Your task to perform on an android device: Open Maps and search for coffee Image 0: 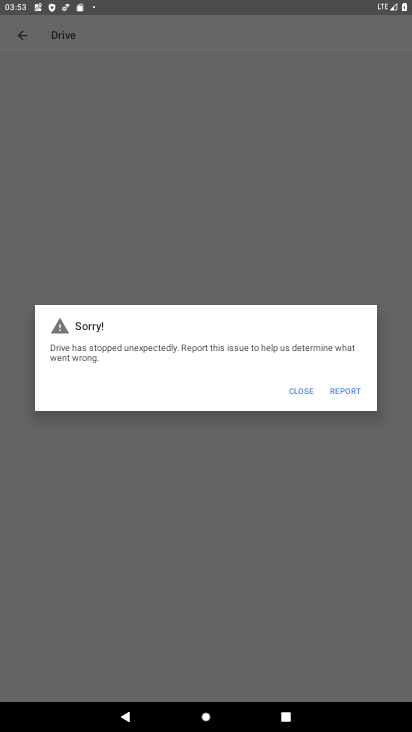
Step 0: press home button
Your task to perform on an android device: Open Maps and search for coffee Image 1: 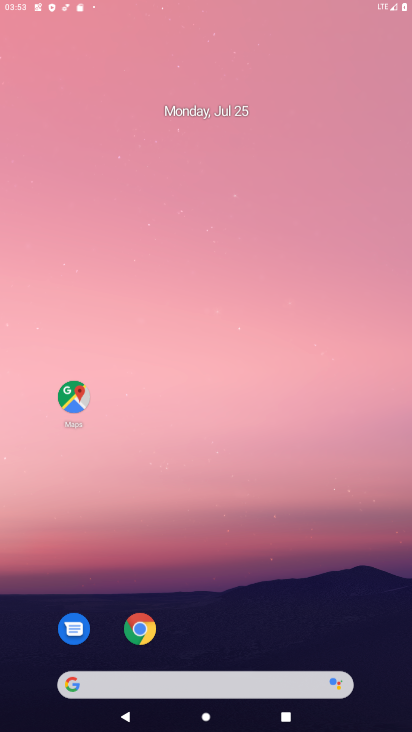
Step 1: press home button
Your task to perform on an android device: Open Maps and search for coffee Image 2: 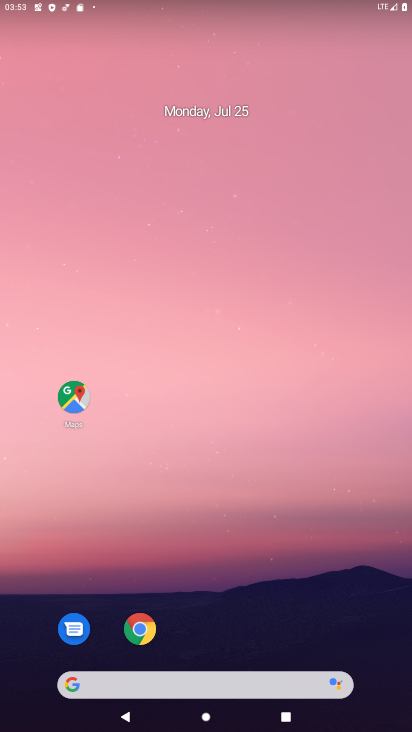
Step 2: click (68, 397)
Your task to perform on an android device: Open Maps and search for coffee Image 3: 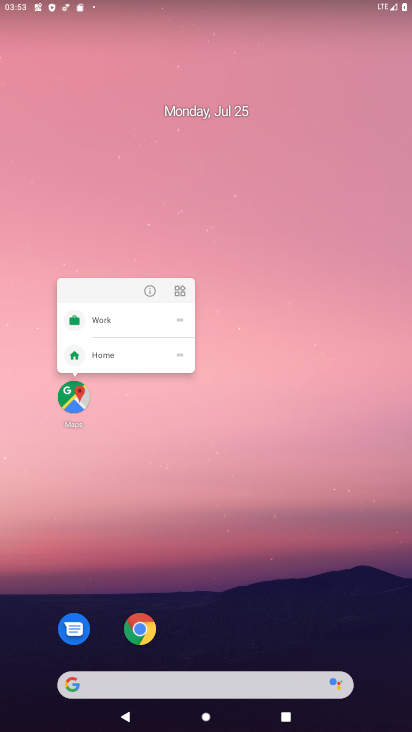
Step 3: click (70, 401)
Your task to perform on an android device: Open Maps and search for coffee Image 4: 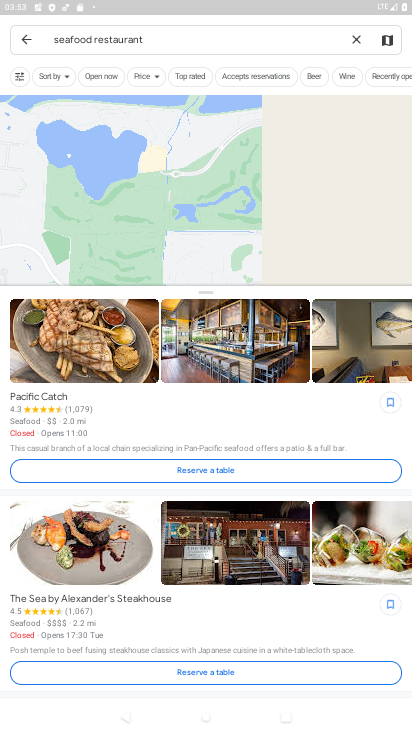
Step 4: click (360, 41)
Your task to perform on an android device: Open Maps and search for coffee Image 5: 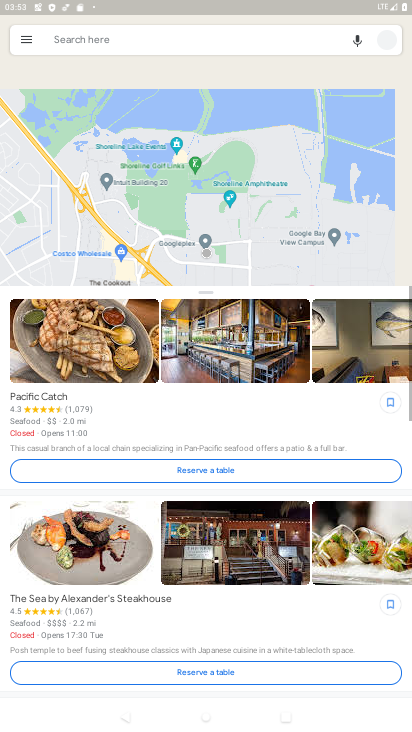
Step 5: click (177, 45)
Your task to perform on an android device: Open Maps and search for coffee Image 6: 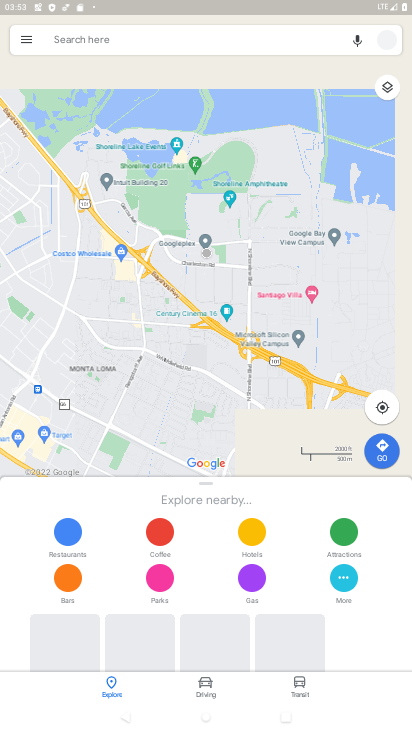
Step 6: click (124, 43)
Your task to perform on an android device: Open Maps and search for coffee Image 7: 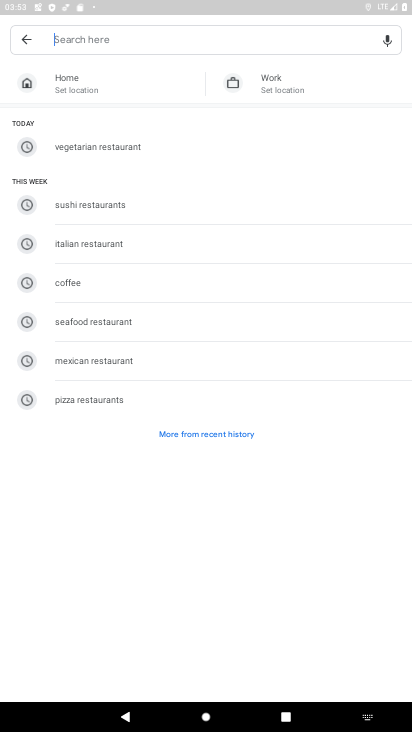
Step 7: type "coffee"
Your task to perform on an android device: Open Maps and search for coffee Image 8: 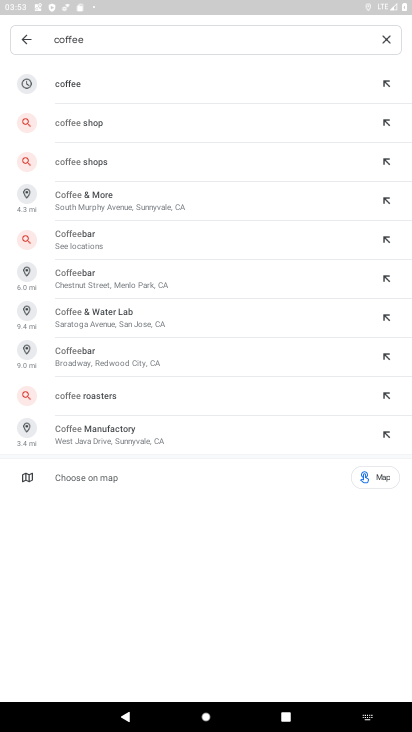
Step 8: click (57, 77)
Your task to perform on an android device: Open Maps and search for coffee Image 9: 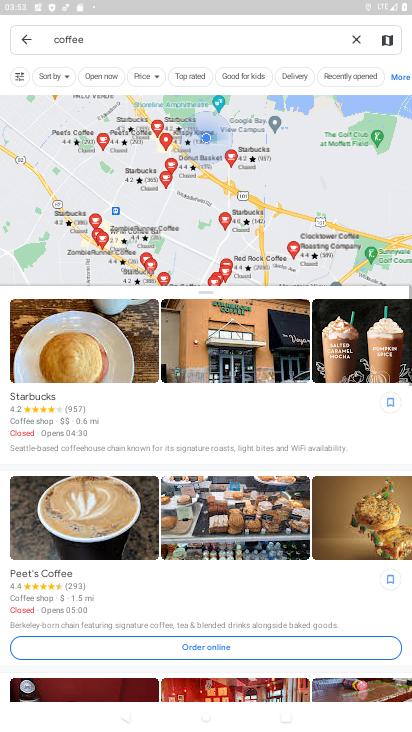
Step 9: task complete